Your task to perform on an android device: Open calendar and show me the fourth week of next month Image 0: 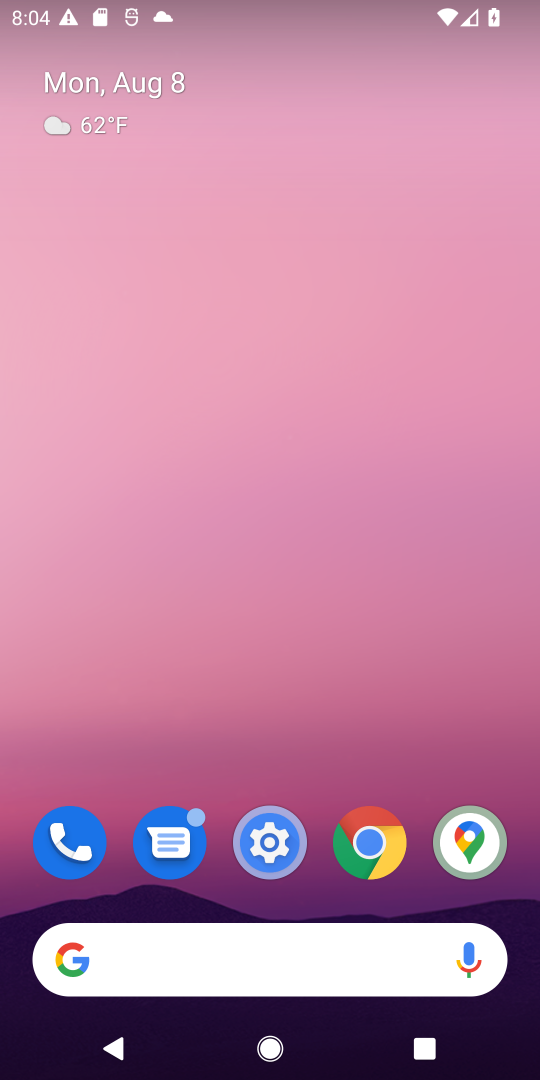
Step 0: drag from (317, 743) to (386, 10)
Your task to perform on an android device: Open calendar and show me the fourth week of next month Image 1: 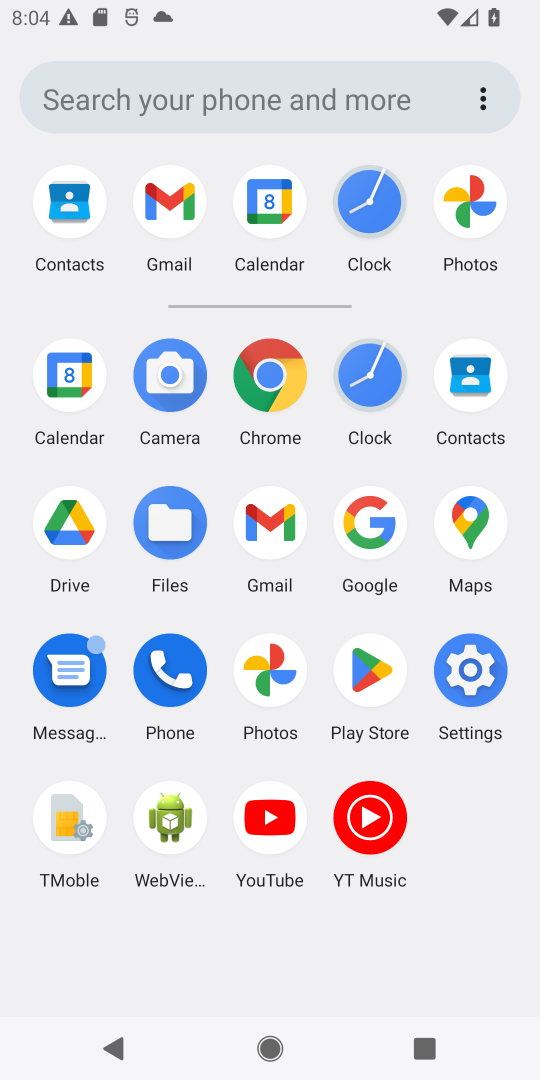
Step 1: click (276, 199)
Your task to perform on an android device: Open calendar and show me the fourth week of next month Image 2: 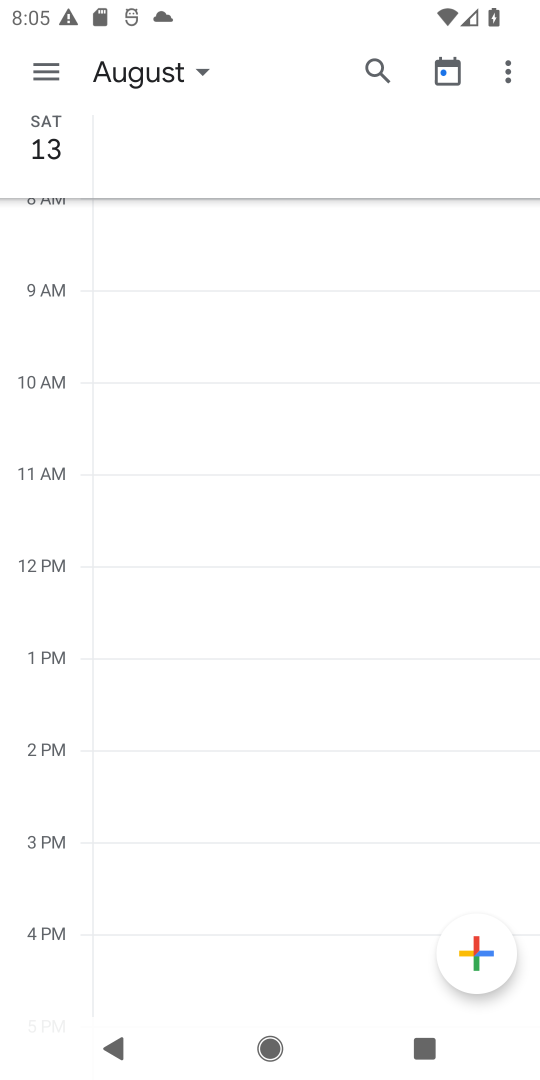
Step 2: click (53, 72)
Your task to perform on an android device: Open calendar and show me the fourth week of next month Image 3: 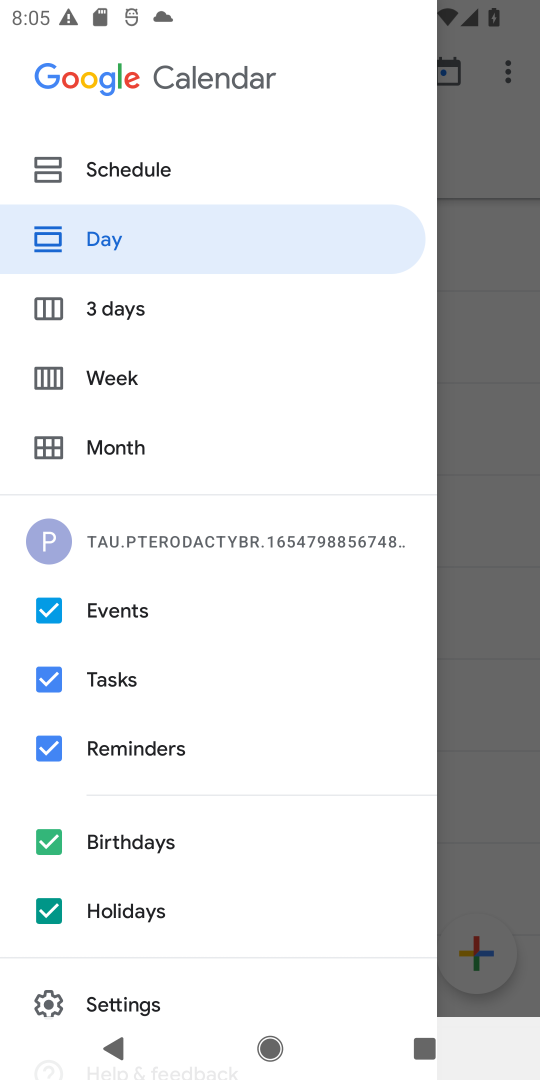
Step 3: click (53, 445)
Your task to perform on an android device: Open calendar and show me the fourth week of next month Image 4: 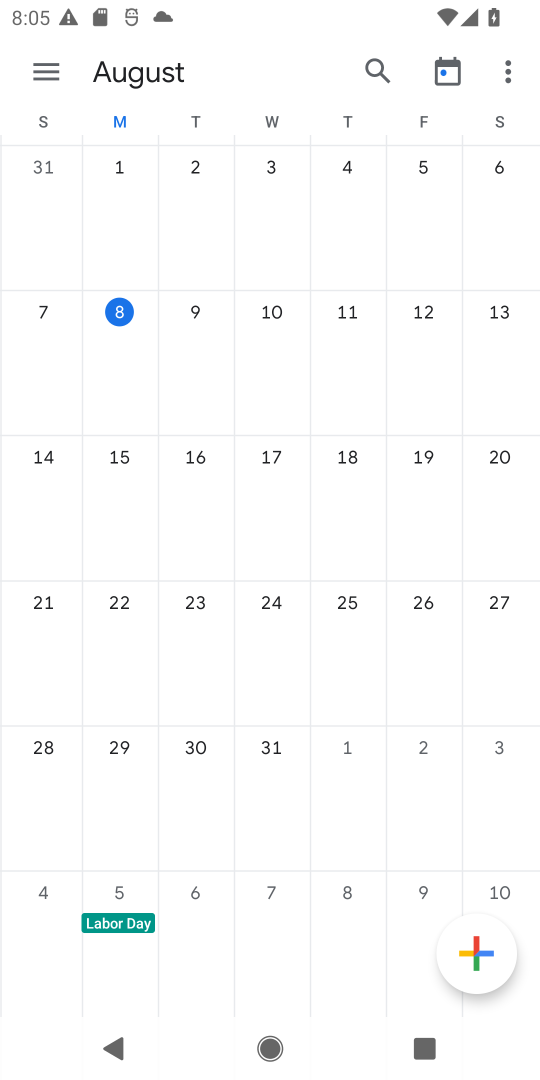
Step 4: drag from (484, 367) to (0, 448)
Your task to perform on an android device: Open calendar and show me the fourth week of next month Image 5: 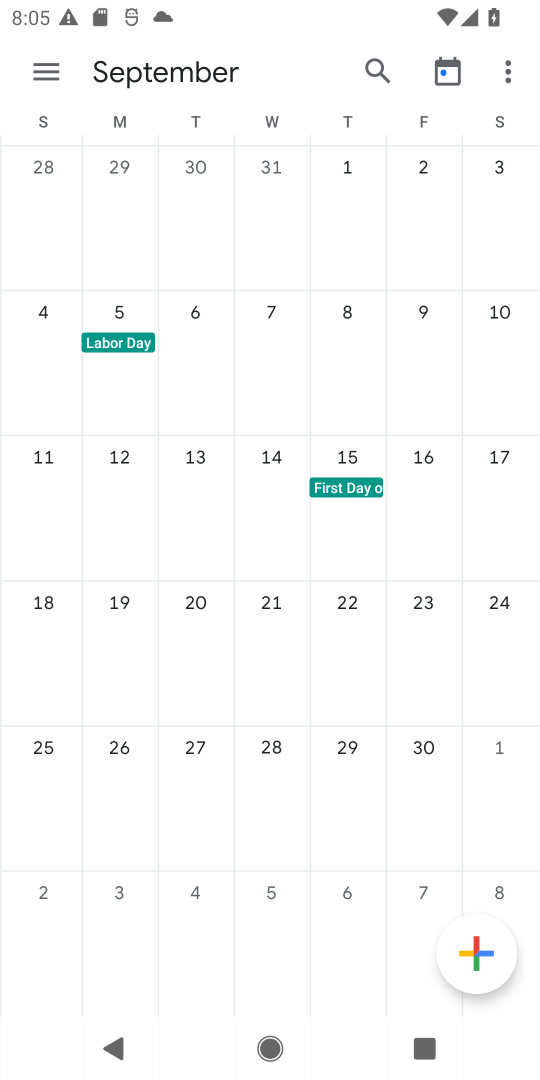
Step 5: click (42, 733)
Your task to perform on an android device: Open calendar and show me the fourth week of next month Image 6: 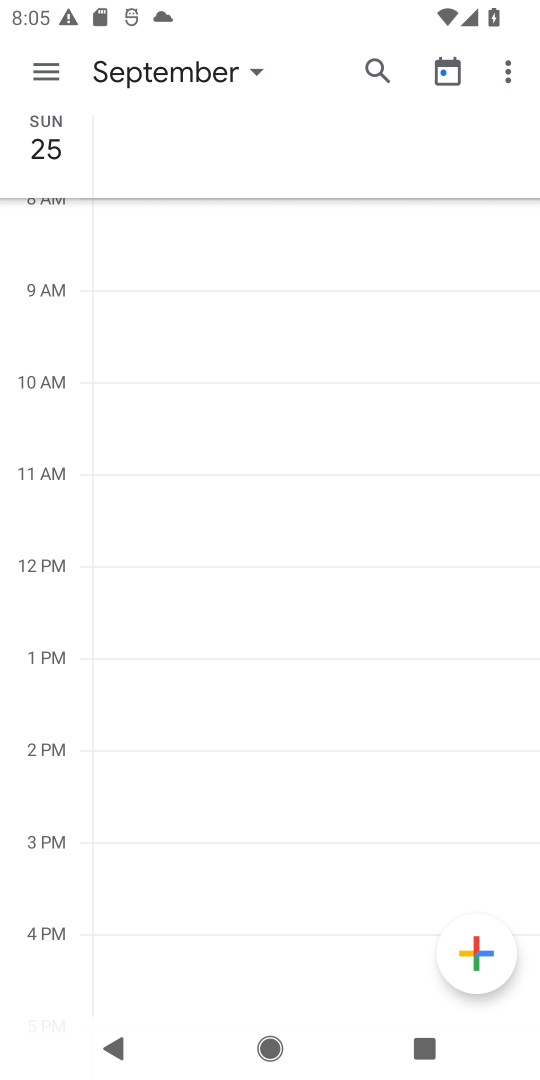
Step 6: click (52, 61)
Your task to perform on an android device: Open calendar and show me the fourth week of next month Image 7: 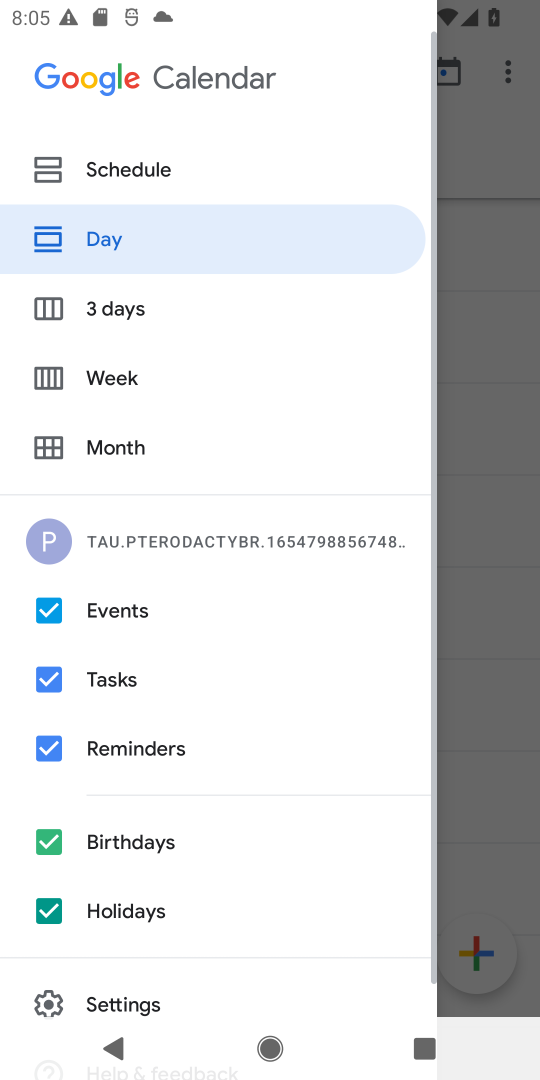
Step 7: click (56, 375)
Your task to perform on an android device: Open calendar and show me the fourth week of next month Image 8: 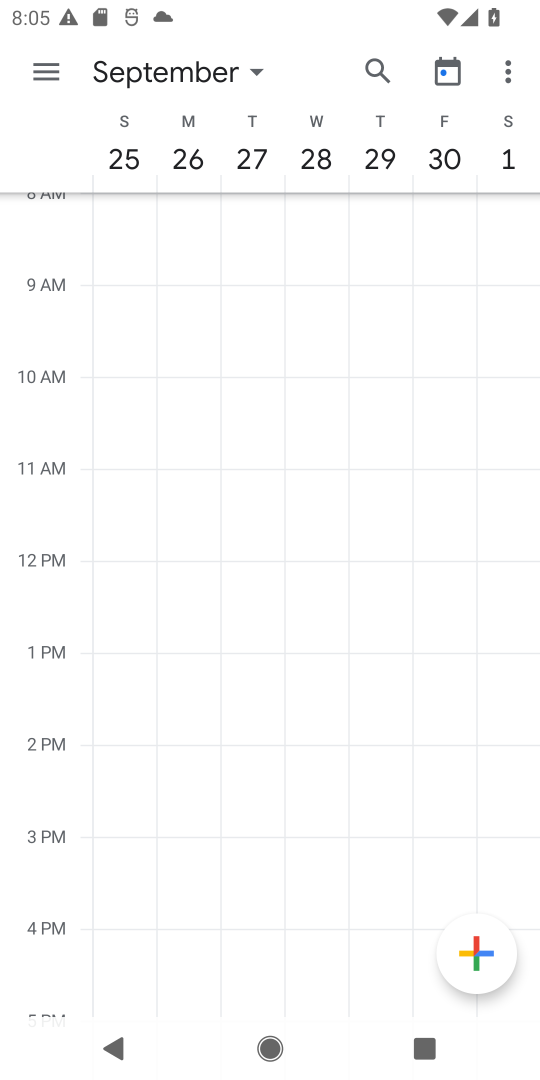
Step 8: task complete